Your task to perform on an android device: toggle notifications settings in the gmail app Image 0: 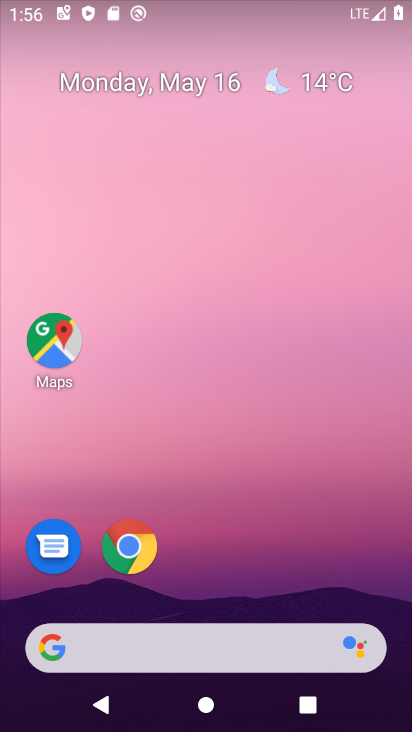
Step 0: drag from (284, 659) to (224, 269)
Your task to perform on an android device: toggle notifications settings in the gmail app Image 1: 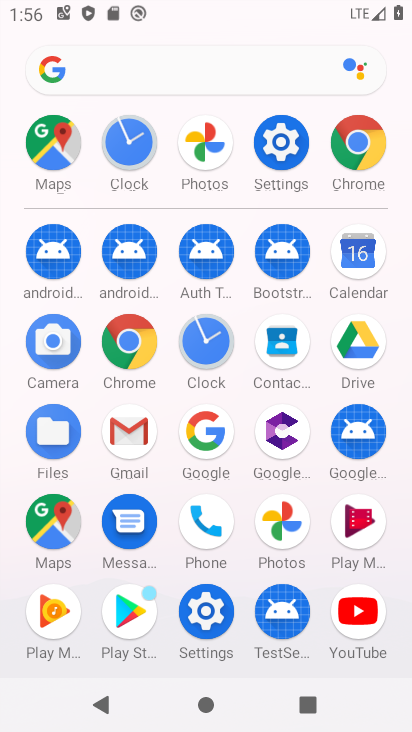
Step 1: click (141, 433)
Your task to perform on an android device: toggle notifications settings in the gmail app Image 2: 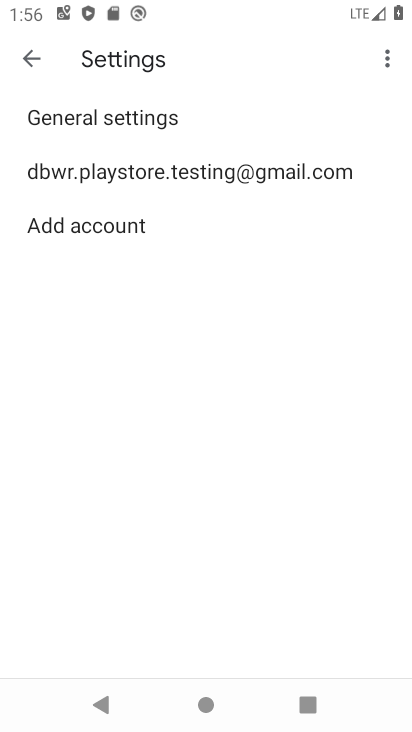
Step 2: click (96, 178)
Your task to perform on an android device: toggle notifications settings in the gmail app Image 3: 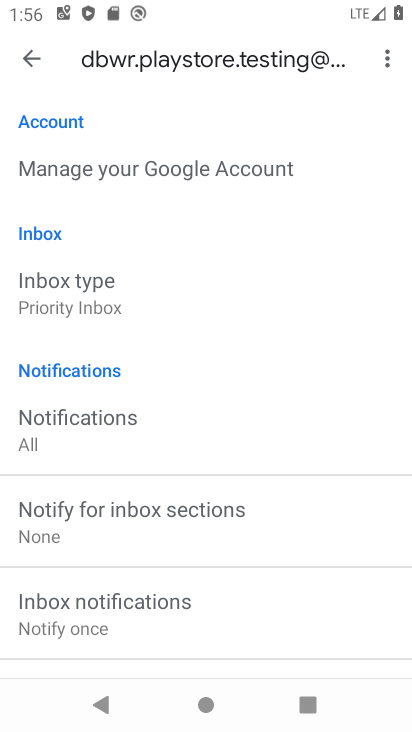
Step 3: click (147, 421)
Your task to perform on an android device: toggle notifications settings in the gmail app Image 4: 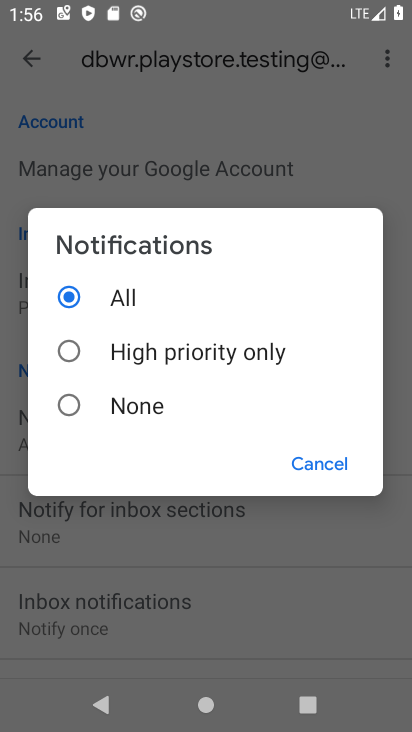
Step 4: task complete